Your task to perform on an android device: change the clock display to show seconds Image 0: 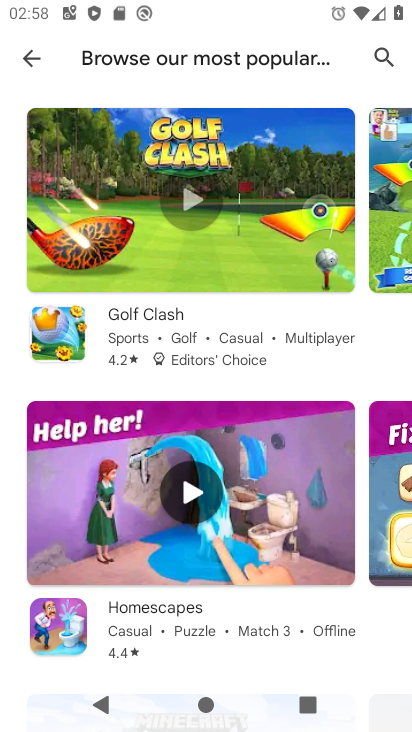
Step 0: press home button
Your task to perform on an android device: change the clock display to show seconds Image 1: 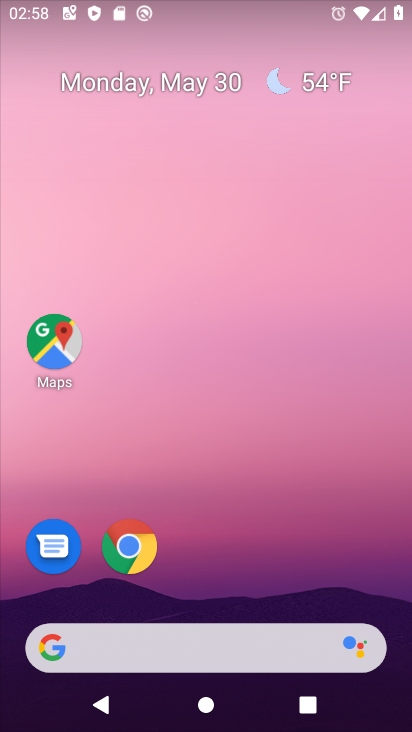
Step 1: drag from (217, 587) to (267, 0)
Your task to perform on an android device: change the clock display to show seconds Image 2: 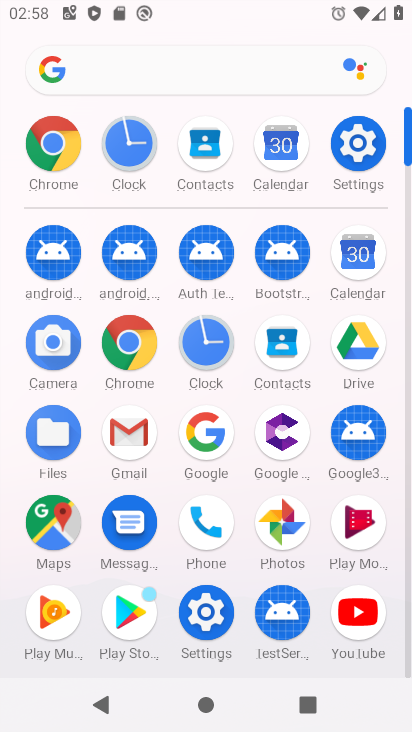
Step 2: click (202, 337)
Your task to perform on an android device: change the clock display to show seconds Image 3: 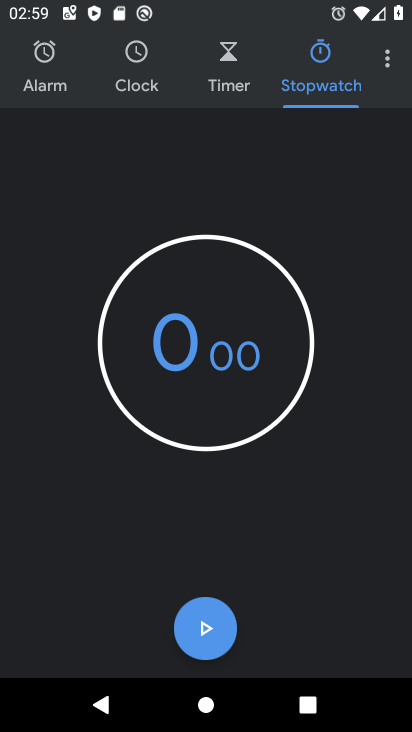
Step 3: click (389, 62)
Your task to perform on an android device: change the clock display to show seconds Image 4: 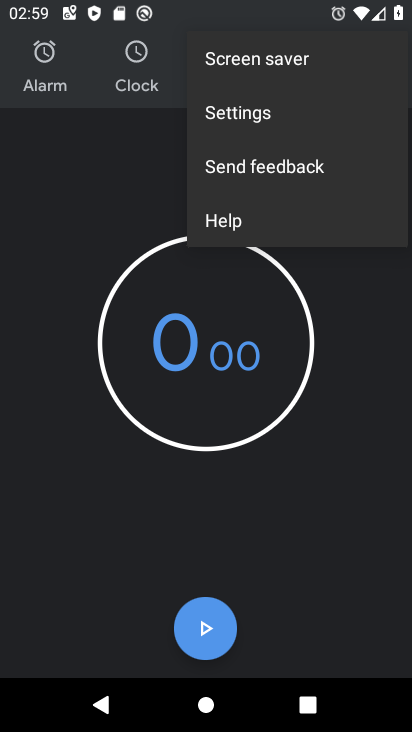
Step 4: click (281, 113)
Your task to perform on an android device: change the clock display to show seconds Image 5: 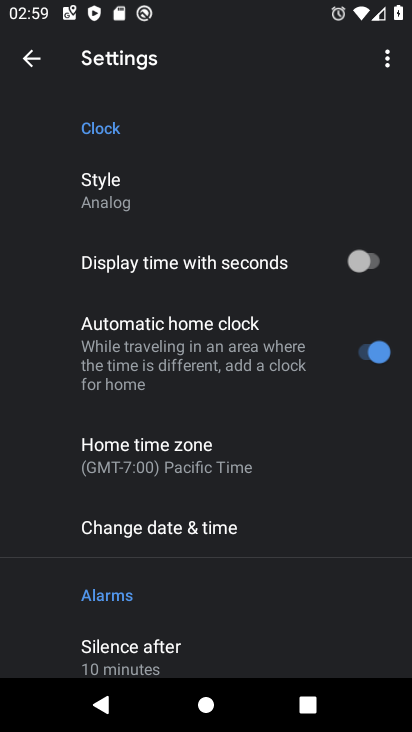
Step 5: click (364, 263)
Your task to perform on an android device: change the clock display to show seconds Image 6: 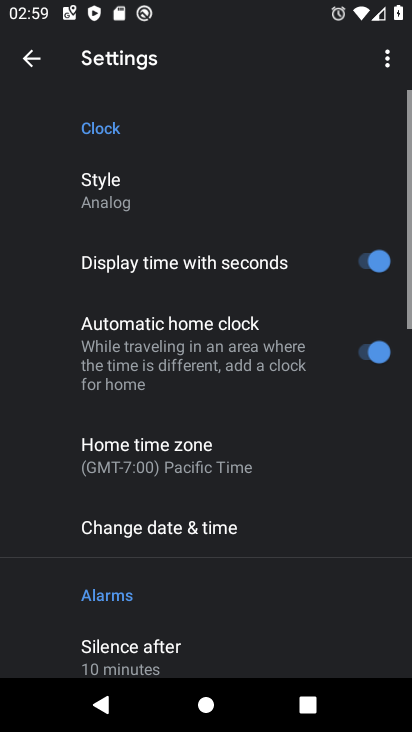
Step 6: task complete